Your task to perform on an android device: turn on improve location accuracy Image 0: 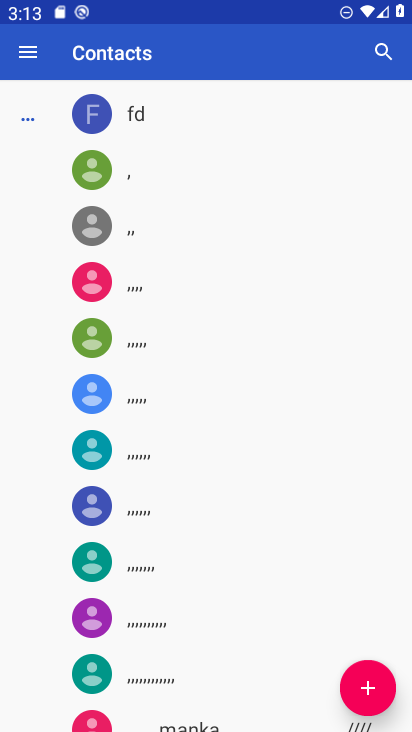
Step 0: press home button
Your task to perform on an android device: turn on improve location accuracy Image 1: 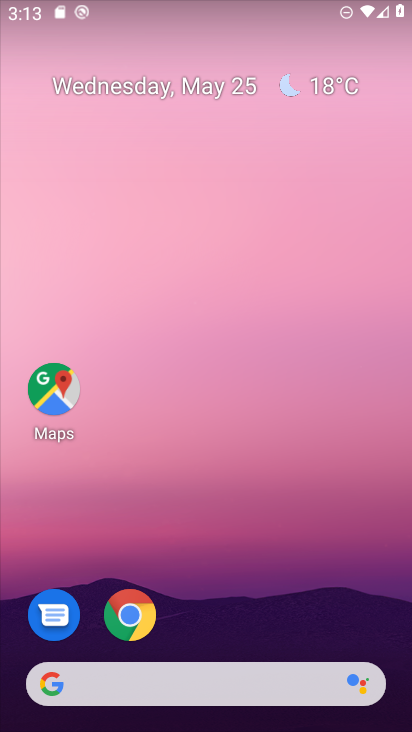
Step 1: drag from (218, 589) to (251, 16)
Your task to perform on an android device: turn on improve location accuracy Image 2: 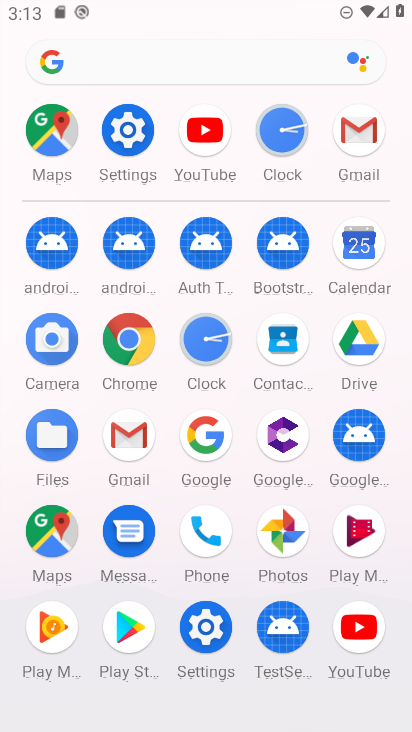
Step 2: click (129, 130)
Your task to perform on an android device: turn on improve location accuracy Image 3: 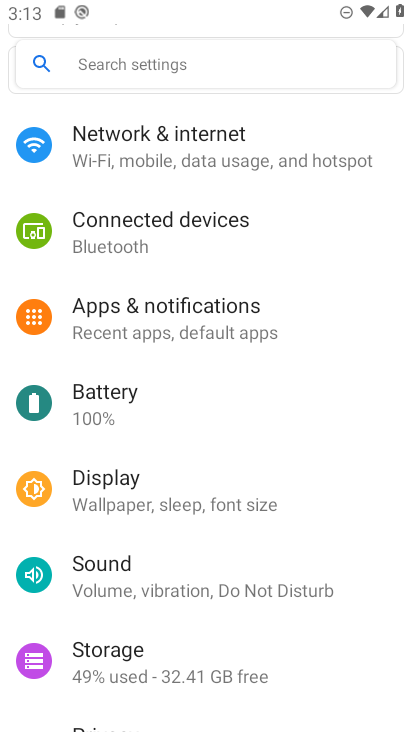
Step 3: drag from (229, 559) to (249, 156)
Your task to perform on an android device: turn on improve location accuracy Image 4: 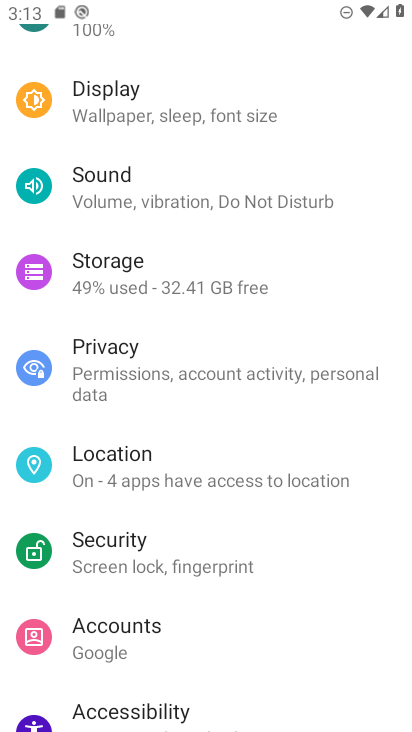
Step 4: click (201, 471)
Your task to perform on an android device: turn on improve location accuracy Image 5: 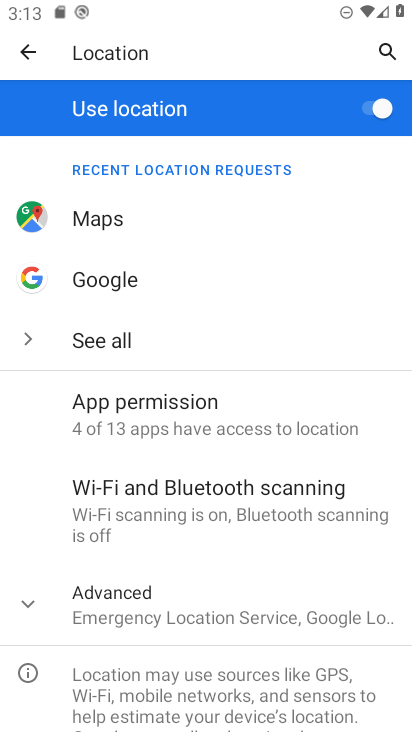
Step 5: click (26, 600)
Your task to perform on an android device: turn on improve location accuracy Image 6: 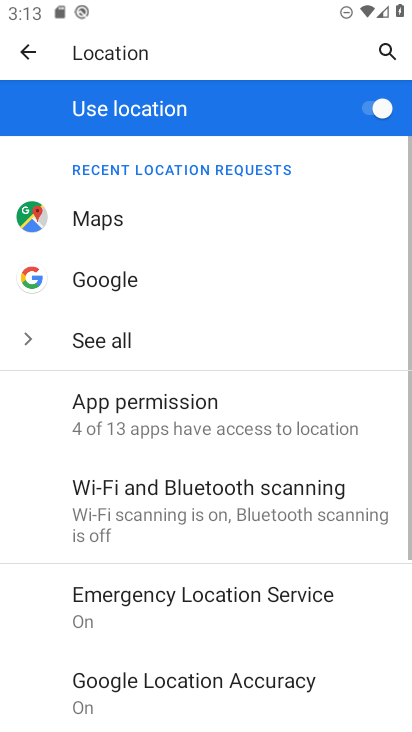
Step 6: task complete